Your task to perform on an android device: Turn on the flashlight Image 0: 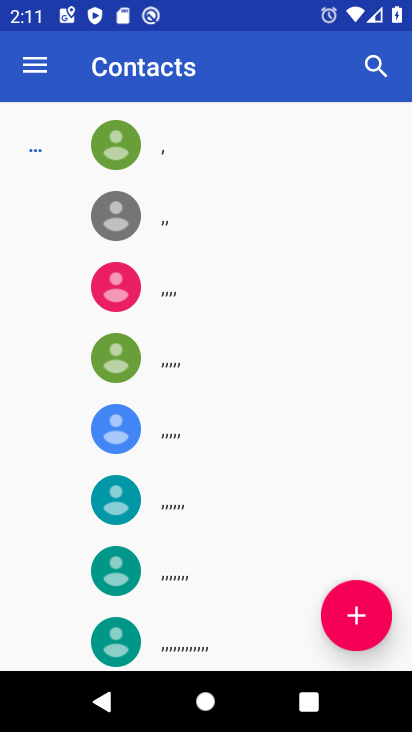
Step 0: press home button
Your task to perform on an android device: Turn on the flashlight Image 1: 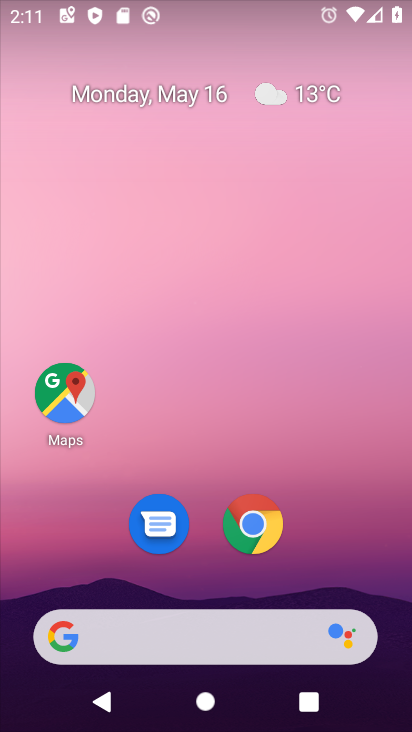
Step 1: drag from (258, 400) to (264, 44)
Your task to perform on an android device: Turn on the flashlight Image 2: 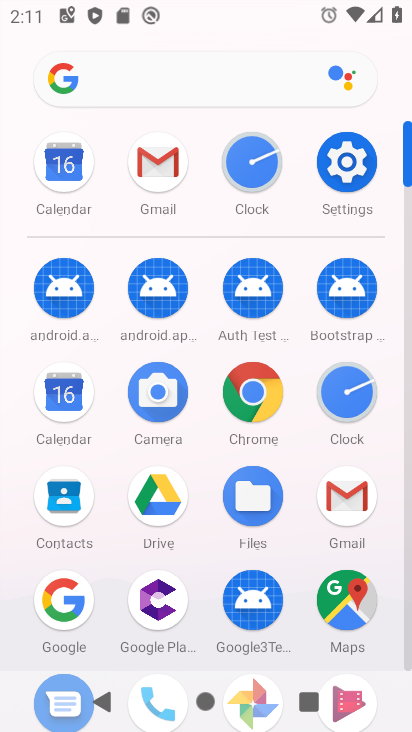
Step 2: click (355, 157)
Your task to perform on an android device: Turn on the flashlight Image 3: 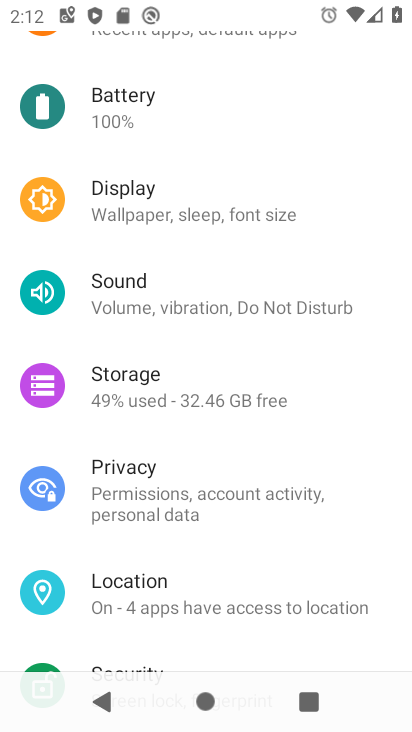
Step 3: drag from (232, 144) to (224, 413)
Your task to perform on an android device: Turn on the flashlight Image 4: 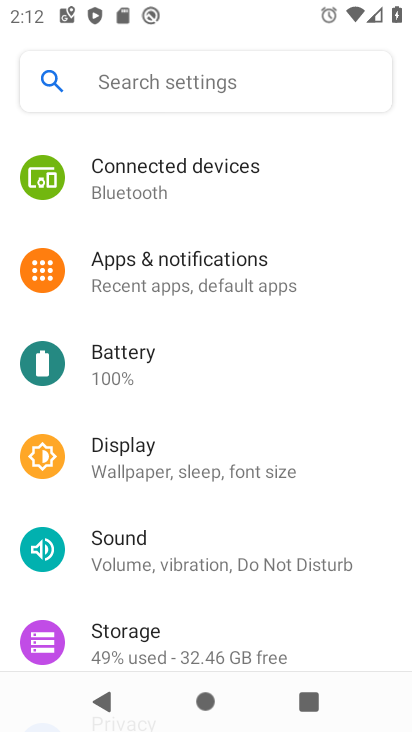
Step 4: drag from (231, 227) to (240, 466)
Your task to perform on an android device: Turn on the flashlight Image 5: 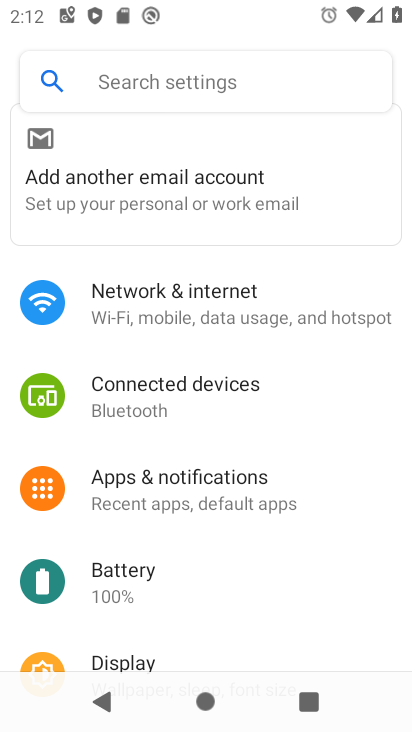
Step 5: drag from (247, 227) to (228, 475)
Your task to perform on an android device: Turn on the flashlight Image 6: 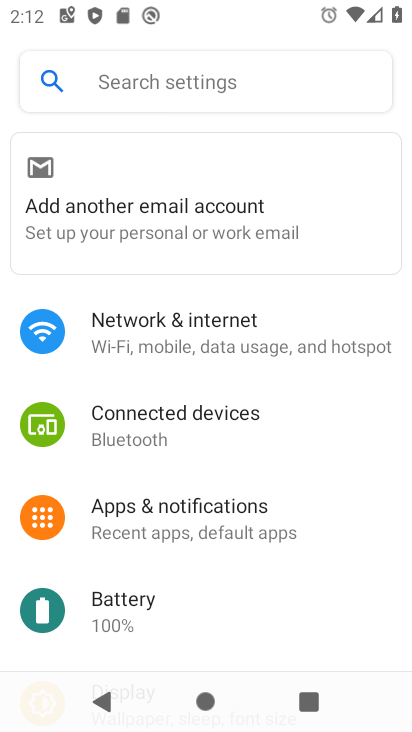
Step 6: click (255, 74)
Your task to perform on an android device: Turn on the flashlight Image 7: 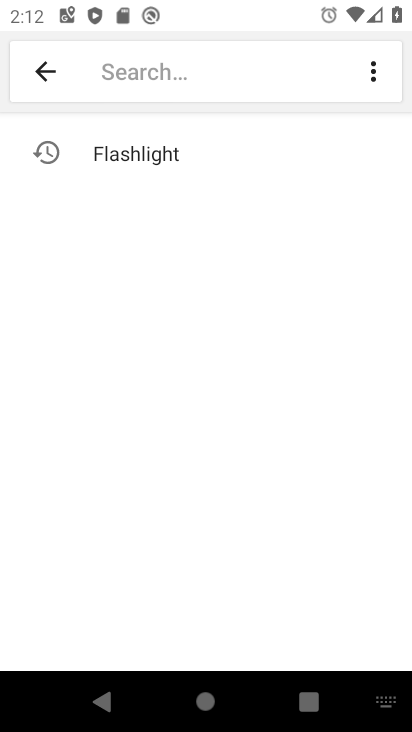
Step 7: click (142, 153)
Your task to perform on an android device: Turn on the flashlight Image 8: 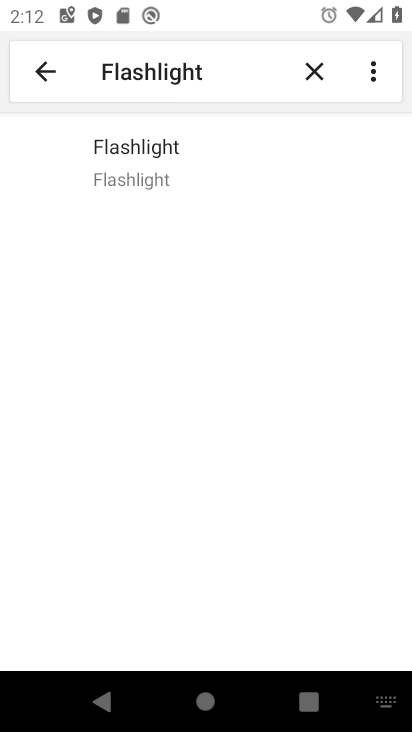
Step 8: click (153, 153)
Your task to perform on an android device: Turn on the flashlight Image 9: 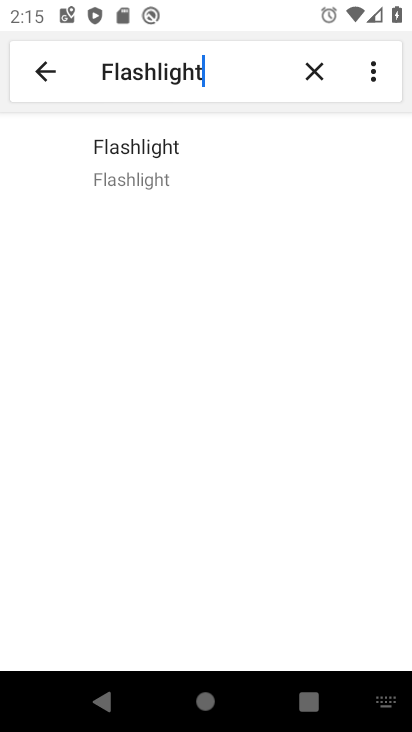
Step 9: task complete